Your task to perform on an android device: turn off location history Image 0: 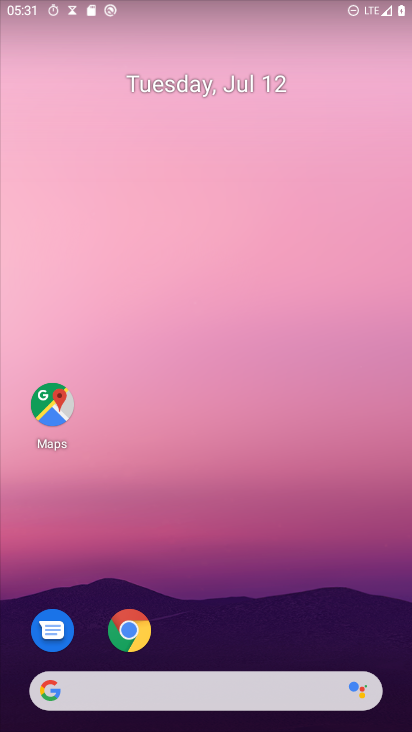
Step 0: drag from (252, 691) to (232, 0)
Your task to perform on an android device: turn off location history Image 1: 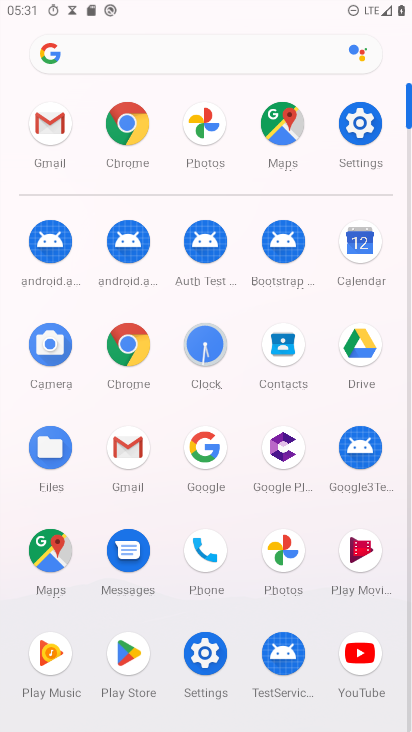
Step 1: click (345, 120)
Your task to perform on an android device: turn off location history Image 2: 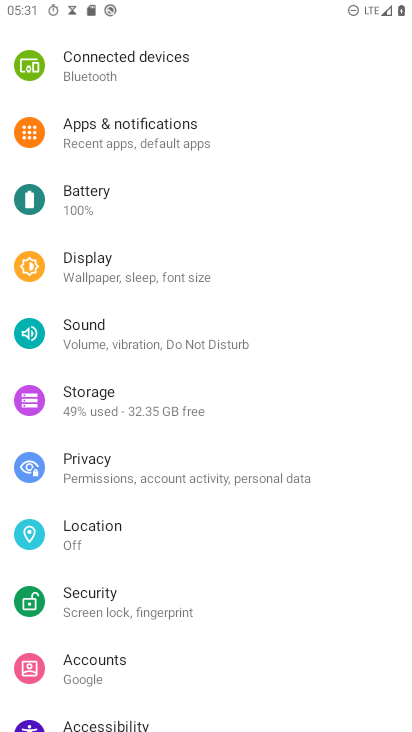
Step 2: click (95, 531)
Your task to perform on an android device: turn off location history Image 3: 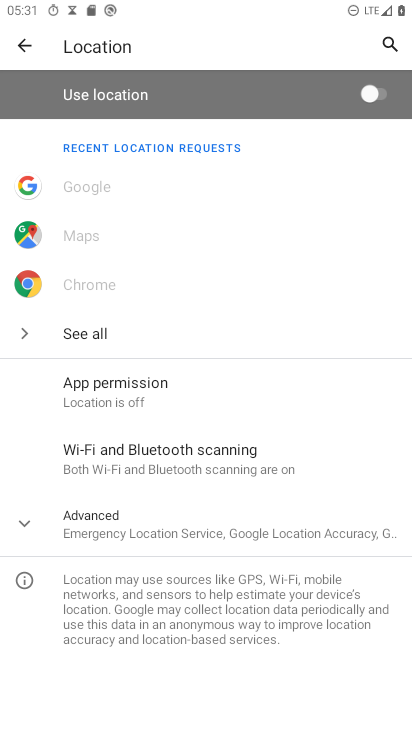
Step 3: click (136, 522)
Your task to perform on an android device: turn off location history Image 4: 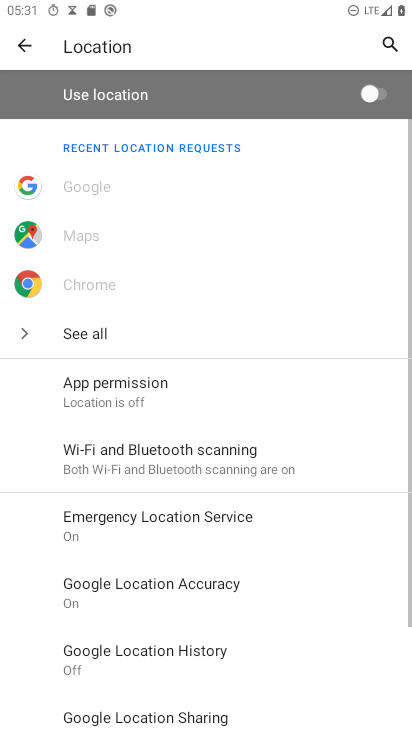
Step 4: drag from (216, 557) to (247, 285)
Your task to perform on an android device: turn off location history Image 5: 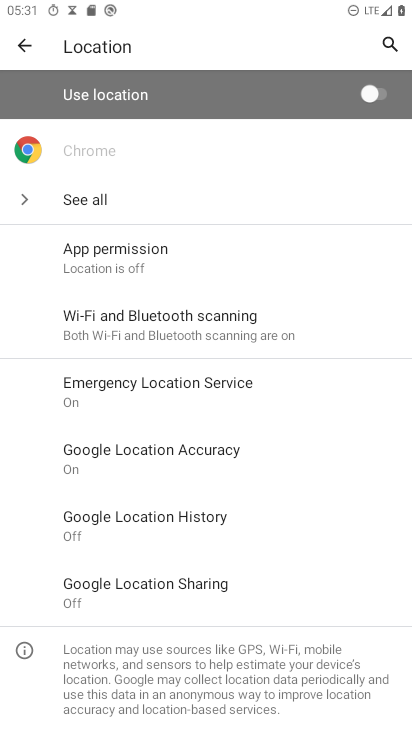
Step 5: click (175, 527)
Your task to perform on an android device: turn off location history Image 6: 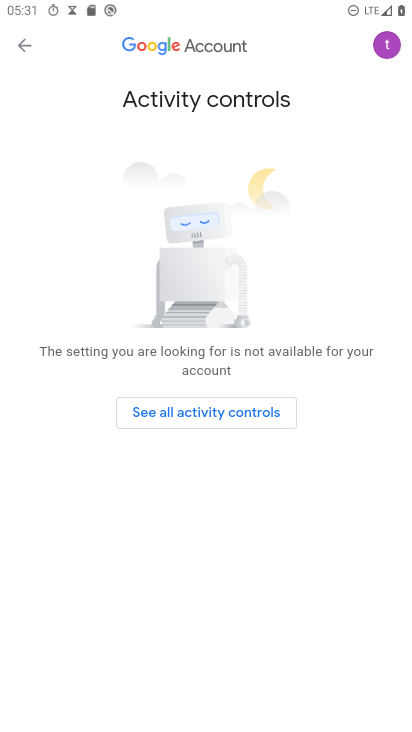
Step 6: click (214, 417)
Your task to perform on an android device: turn off location history Image 7: 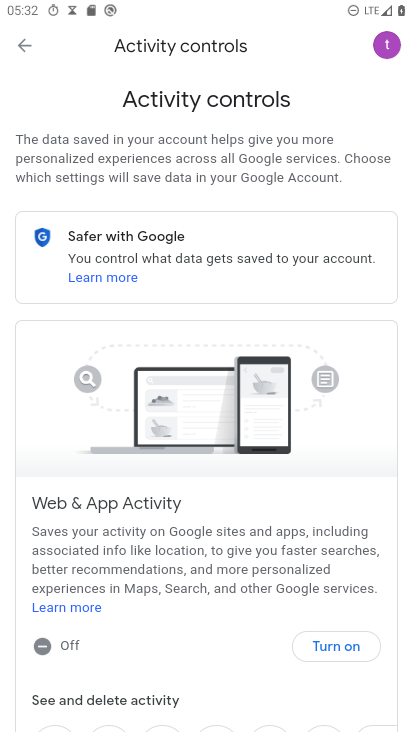
Step 7: task complete